Your task to perform on an android device: Open battery settings Image 0: 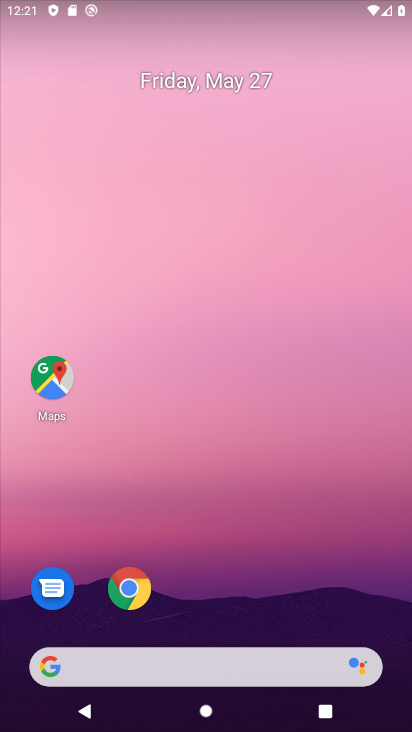
Step 0: drag from (234, 627) to (227, 22)
Your task to perform on an android device: Open battery settings Image 1: 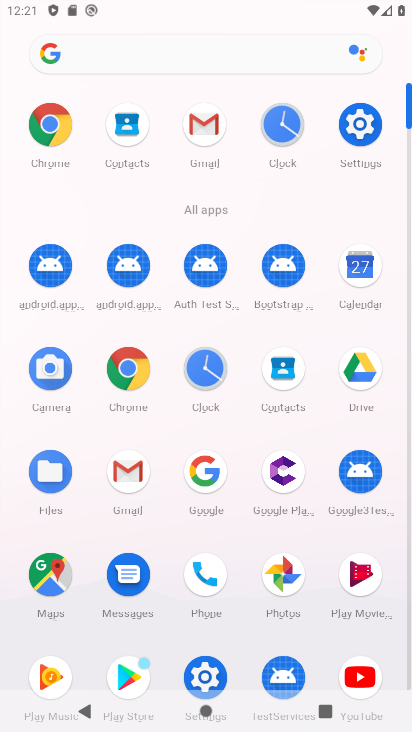
Step 1: click (358, 120)
Your task to perform on an android device: Open battery settings Image 2: 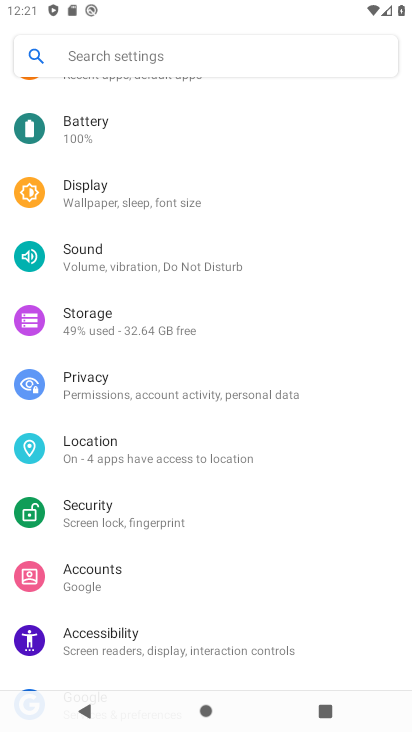
Step 2: click (109, 125)
Your task to perform on an android device: Open battery settings Image 3: 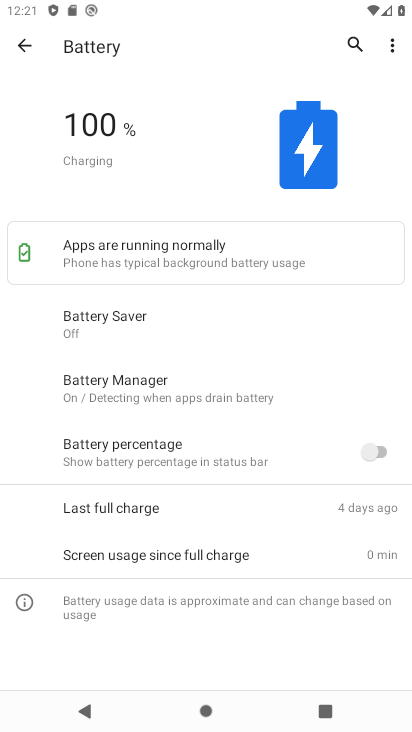
Step 3: task complete